Your task to perform on an android device: Open Yahoo.com Image 0: 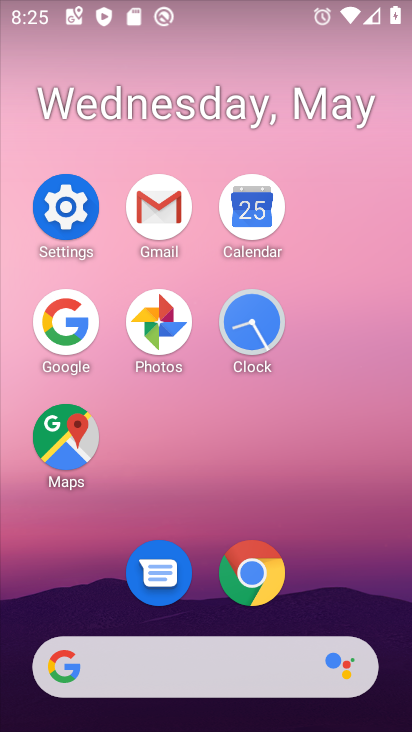
Step 0: click (241, 566)
Your task to perform on an android device: Open Yahoo.com Image 1: 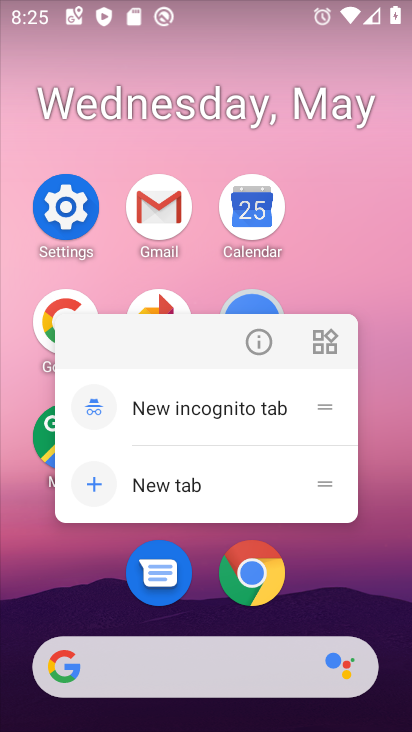
Step 1: click (286, 559)
Your task to perform on an android device: Open Yahoo.com Image 2: 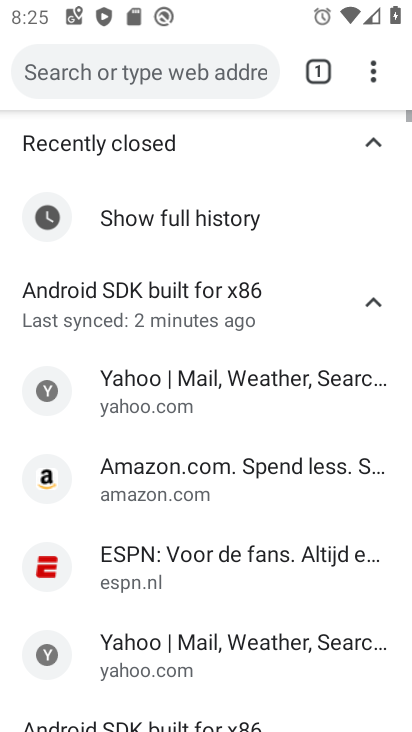
Step 2: click (338, 61)
Your task to perform on an android device: Open Yahoo.com Image 3: 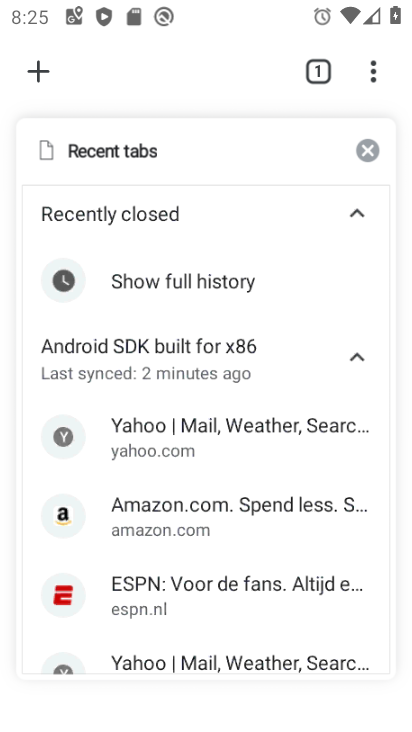
Step 3: click (56, 63)
Your task to perform on an android device: Open Yahoo.com Image 4: 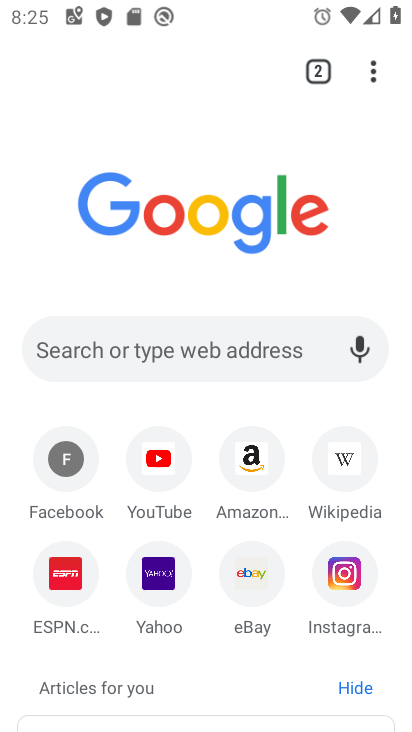
Step 4: click (184, 578)
Your task to perform on an android device: Open Yahoo.com Image 5: 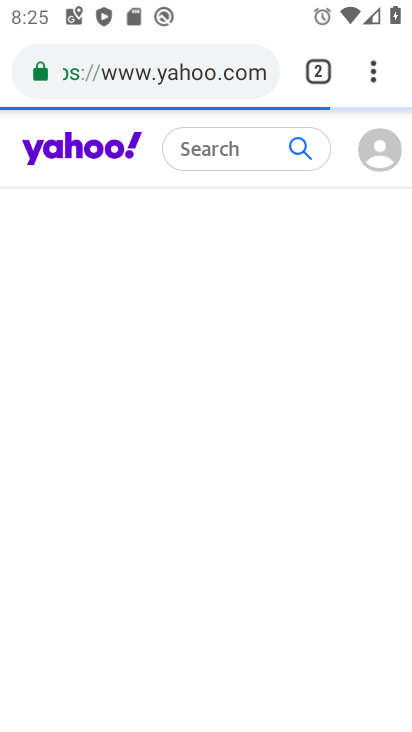
Step 5: task complete